Your task to perform on an android device: check data usage Image 0: 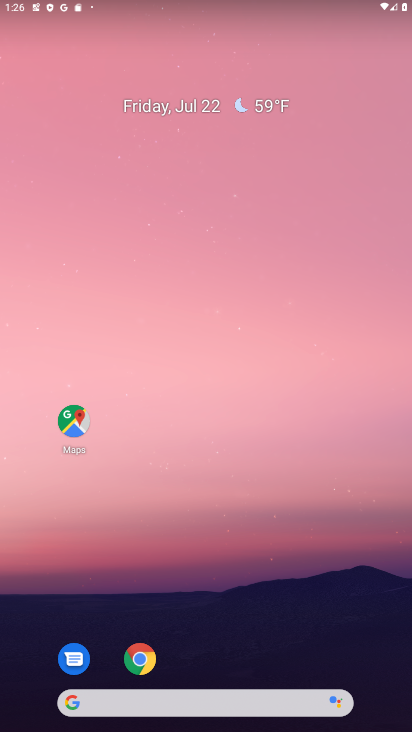
Step 0: drag from (247, 653) to (179, 2)
Your task to perform on an android device: check data usage Image 1: 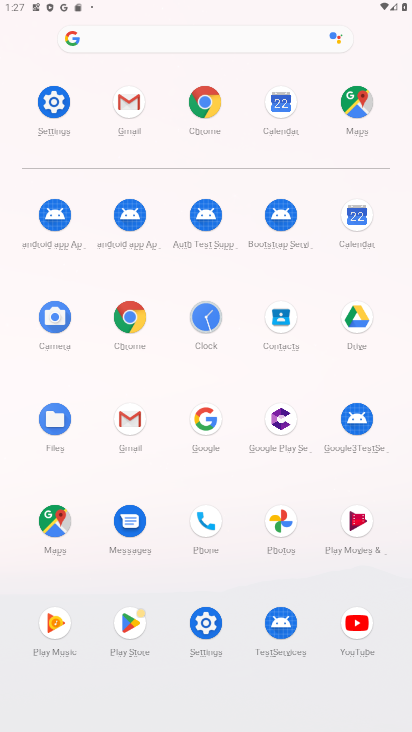
Step 1: click (52, 108)
Your task to perform on an android device: check data usage Image 2: 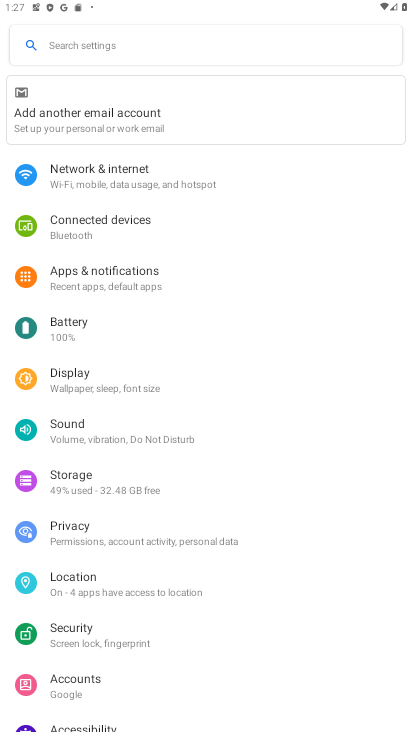
Step 2: click (65, 184)
Your task to perform on an android device: check data usage Image 3: 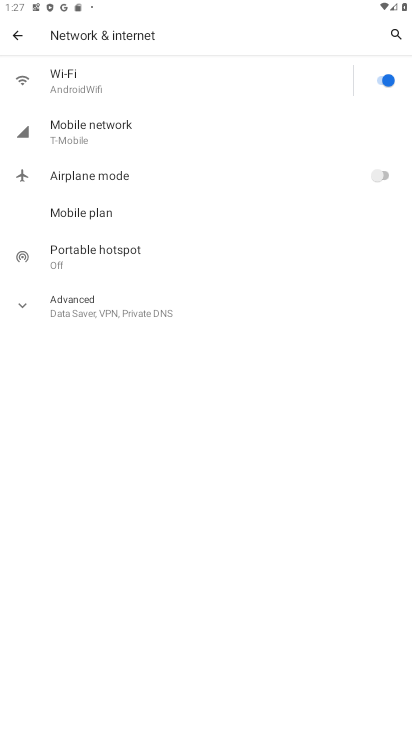
Step 3: click (77, 142)
Your task to perform on an android device: check data usage Image 4: 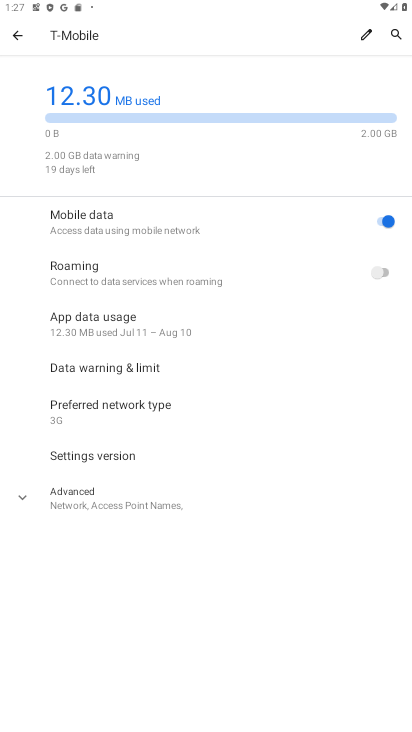
Step 4: task complete